Your task to perform on an android device: show emergency info Image 0: 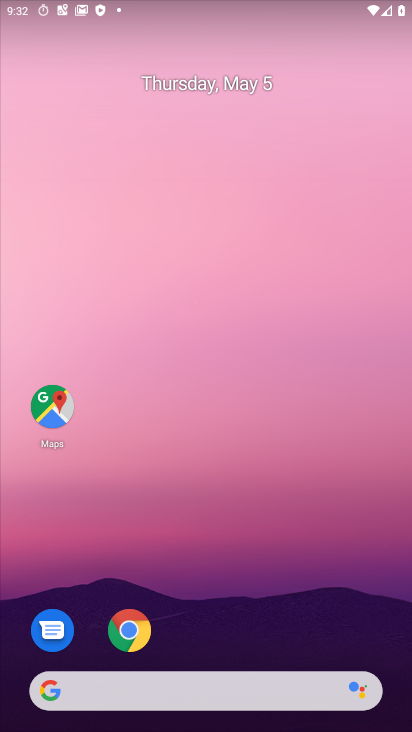
Step 0: drag from (193, 624) to (56, 136)
Your task to perform on an android device: show emergency info Image 1: 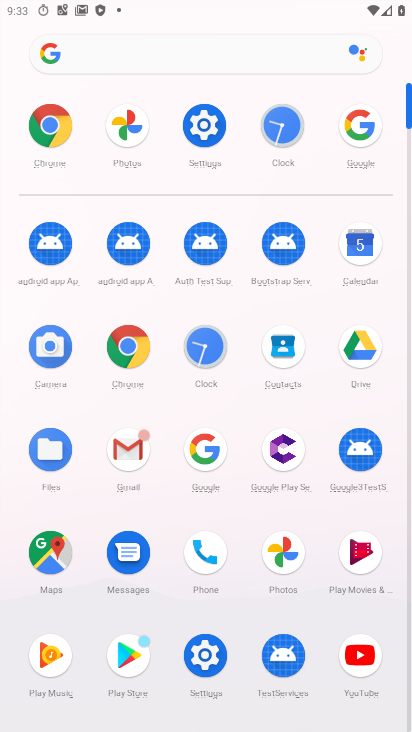
Step 1: click (208, 129)
Your task to perform on an android device: show emergency info Image 2: 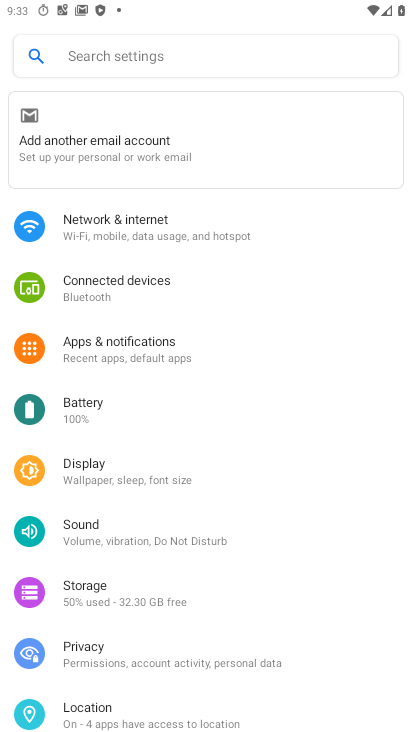
Step 2: drag from (153, 664) to (148, 234)
Your task to perform on an android device: show emergency info Image 3: 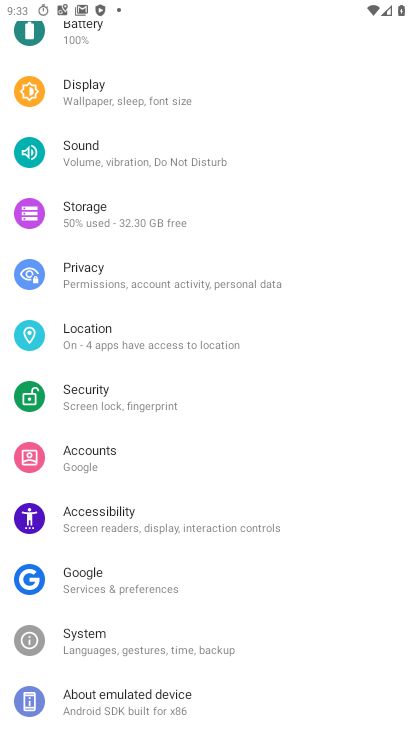
Step 3: drag from (110, 636) to (114, 407)
Your task to perform on an android device: show emergency info Image 4: 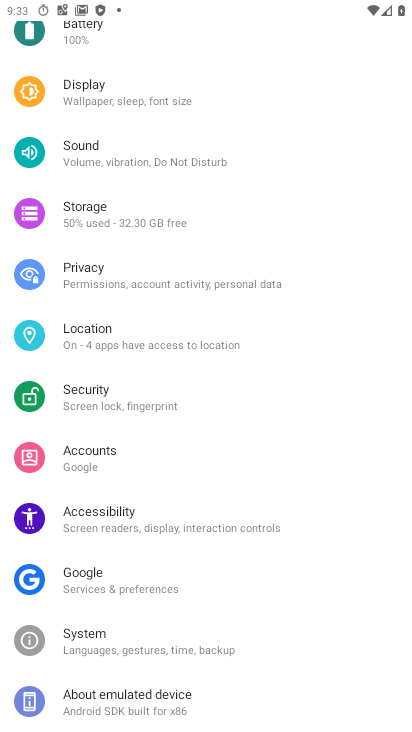
Step 4: click (103, 691)
Your task to perform on an android device: show emergency info Image 5: 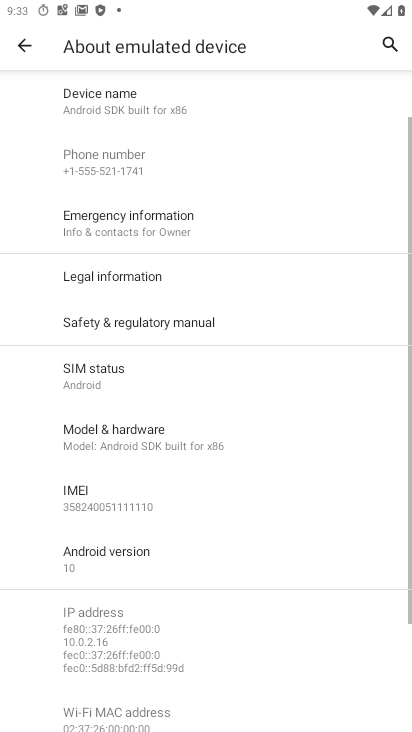
Step 5: click (143, 216)
Your task to perform on an android device: show emergency info Image 6: 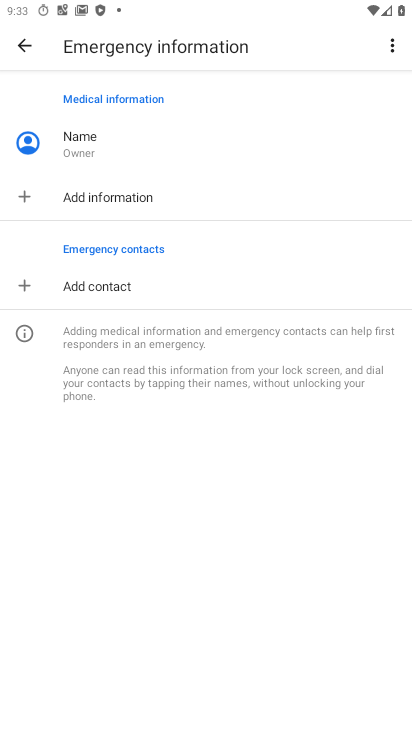
Step 6: task complete